Your task to perform on an android device: toggle improve location accuracy Image 0: 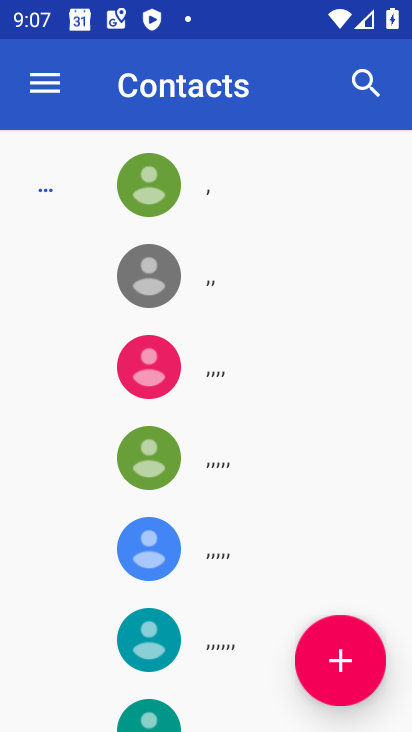
Step 0: press home button
Your task to perform on an android device: toggle improve location accuracy Image 1: 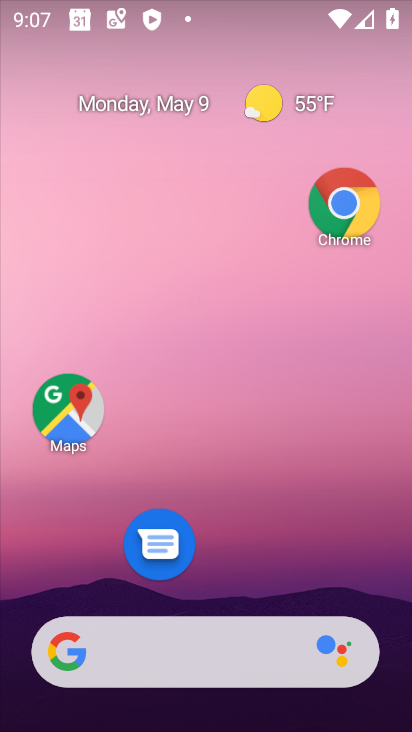
Step 1: drag from (243, 573) to (251, 178)
Your task to perform on an android device: toggle improve location accuracy Image 2: 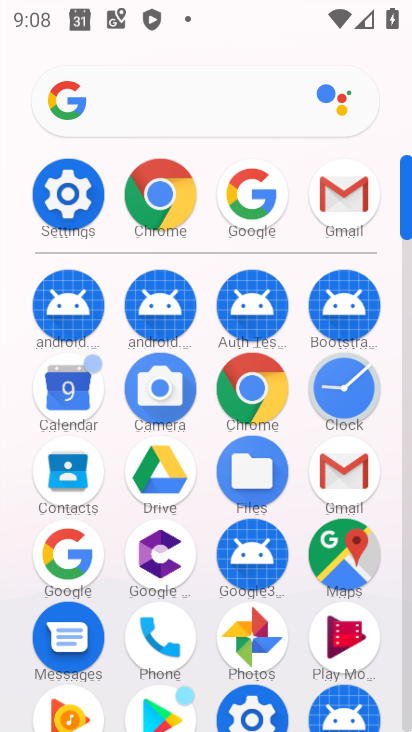
Step 2: click (59, 206)
Your task to perform on an android device: toggle improve location accuracy Image 3: 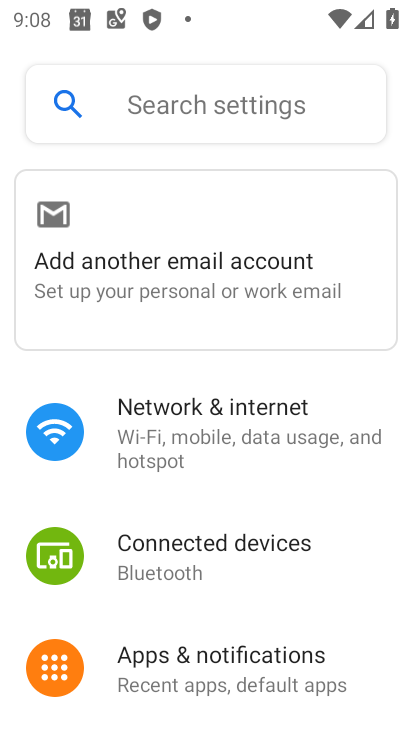
Step 3: drag from (221, 563) to (267, 214)
Your task to perform on an android device: toggle improve location accuracy Image 4: 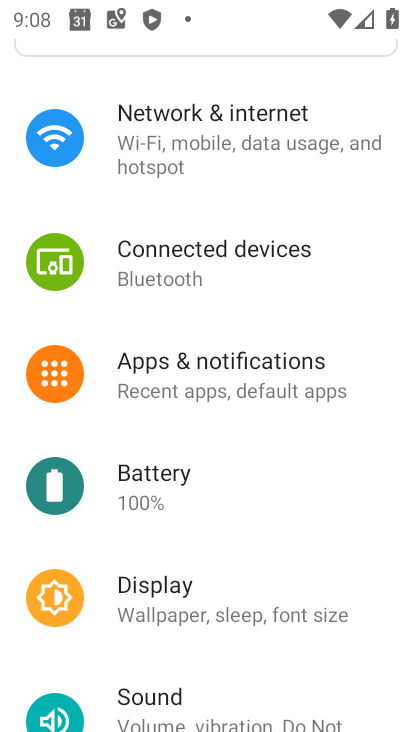
Step 4: drag from (235, 511) to (266, 206)
Your task to perform on an android device: toggle improve location accuracy Image 5: 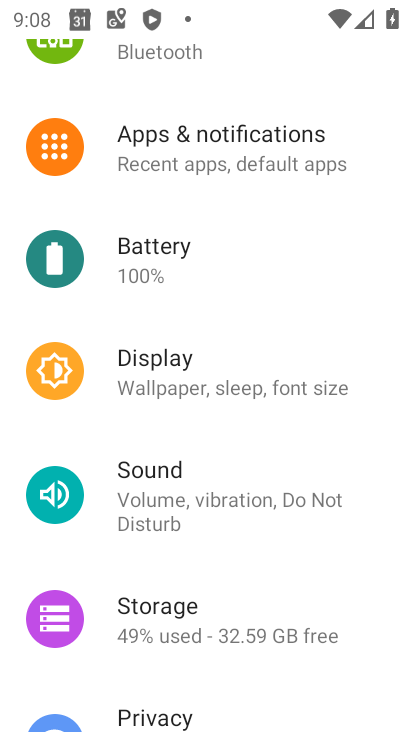
Step 5: drag from (259, 579) to (281, 252)
Your task to perform on an android device: toggle improve location accuracy Image 6: 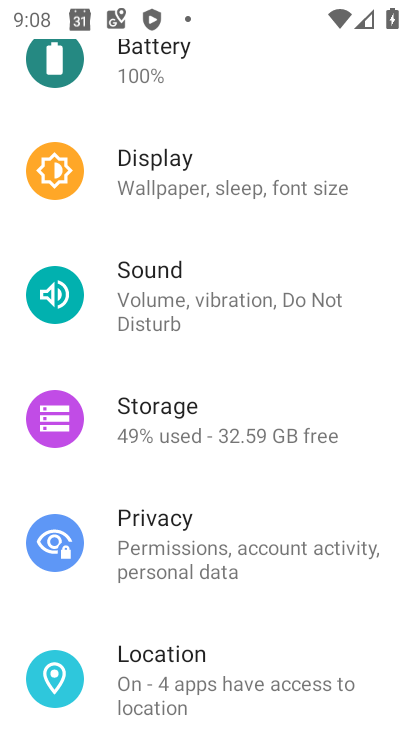
Step 6: click (226, 645)
Your task to perform on an android device: toggle improve location accuracy Image 7: 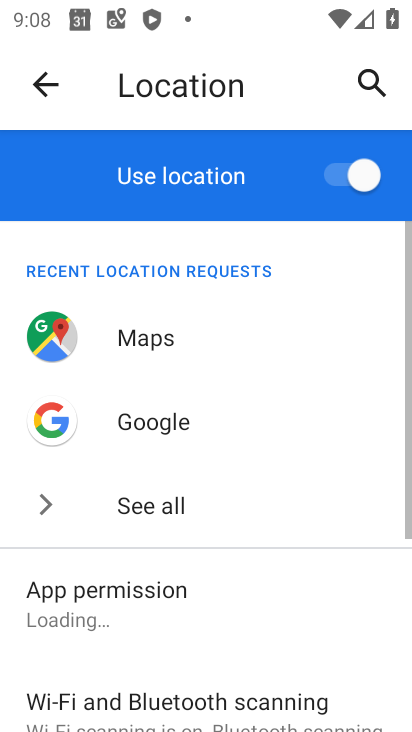
Step 7: drag from (226, 633) to (273, 330)
Your task to perform on an android device: toggle improve location accuracy Image 8: 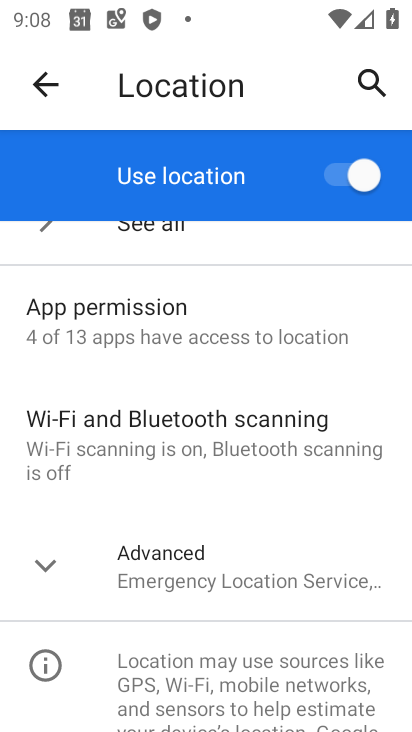
Step 8: click (194, 547)
Your task to perform on an android device: toggle improve location accuracy Image 9: 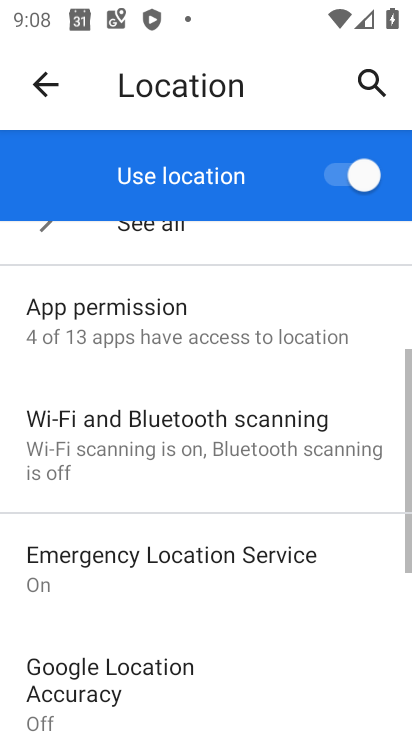
Step 9: drag from (168, 588) to (253, 335)
Your task to perform on an android device: toggle improve location accuracy Image 10: 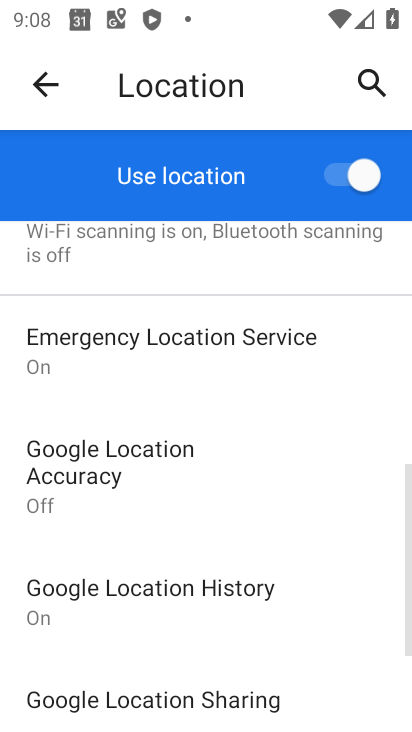
Step 10: click (207, 448)
Your task to perform on an android device: toggle improve location accuracy Image 11: 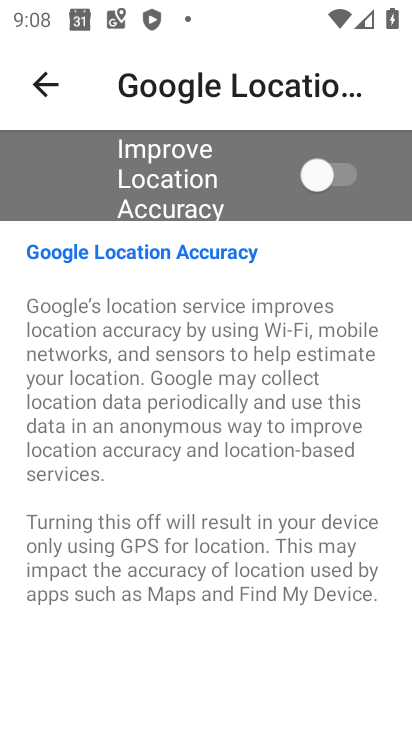
Step 11: click (331, 166)
Your task to perform on an android device: toggle improve location accuracy Image 12: 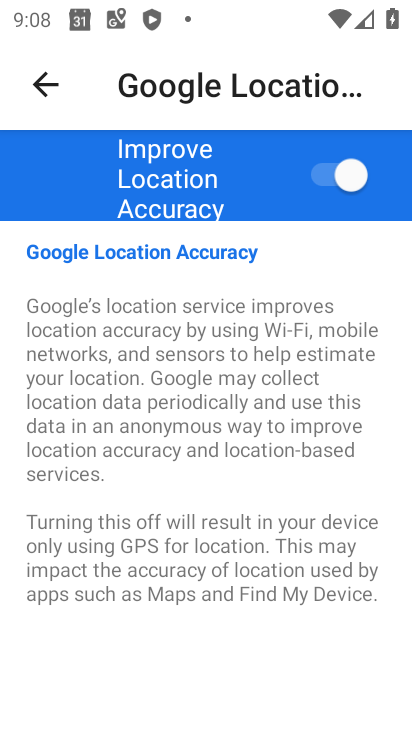
Step 12: task complete